Your task to perform on an android device: Open Google Maps and go to "Timeline" Image 0: 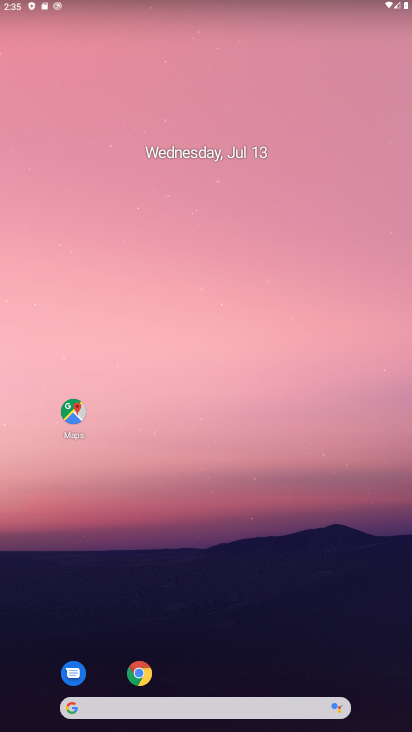
Step 0: click (74, 412)
Your task to perform on an android device: Open Google Maps and go to "Timeline" Image 1: 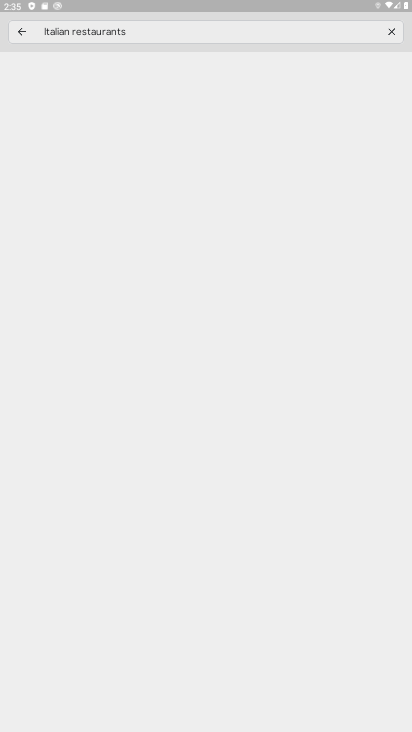
Step 1: press back button
Your task to perform on an android device: Open Google Maps and go to "Timeline" Image 2: 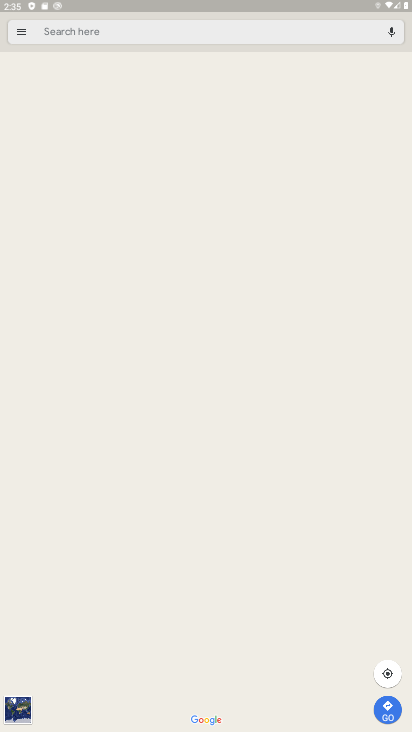
Step 2: click (20, 36)
Your task to perform on an android device: Open Google Maps and go to "Timeline" Image 3: 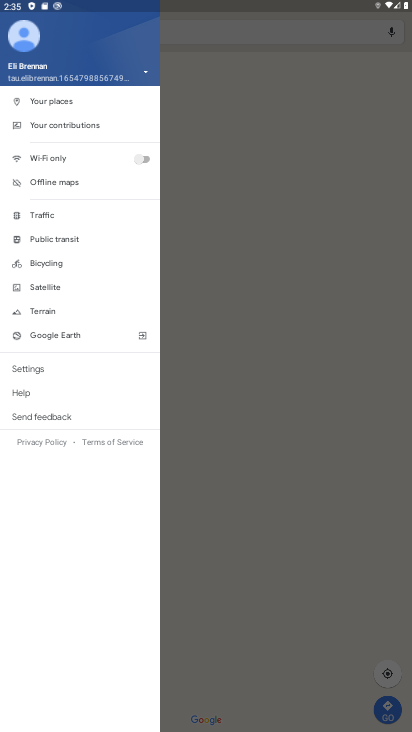
Step 3: click (64, 100)
Your task to perform on an android device: Open Google Maps and go to "Timeline" Image 4: 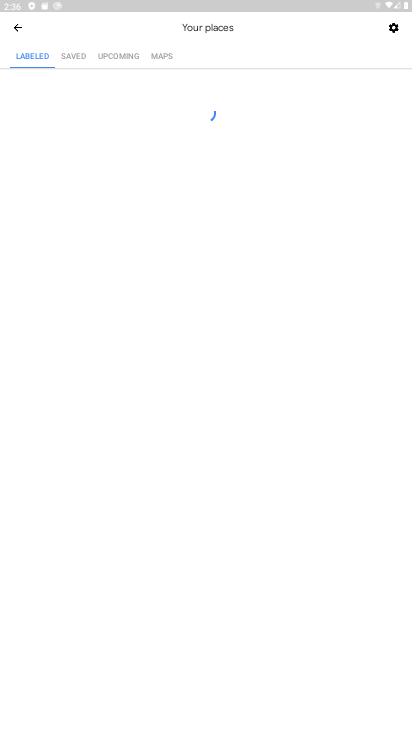
Step 4: press back button
Your task to perform on an android device: Open Google Maps and go to "Timeline" Image 5: 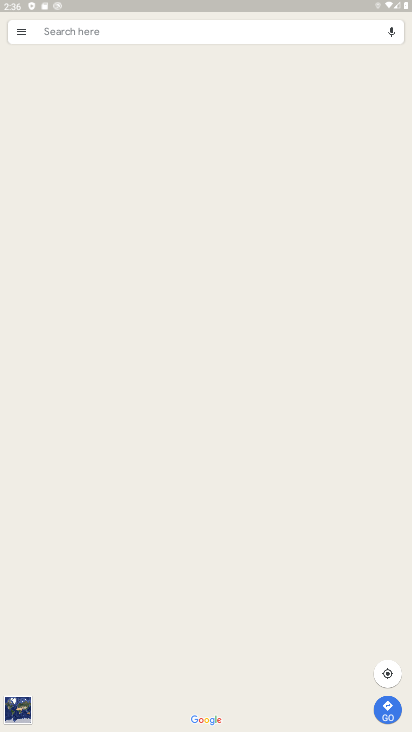
Step 5: press home button
Your task to perform on an android device: Open Google Maps and go to "Timeline" Image 6: 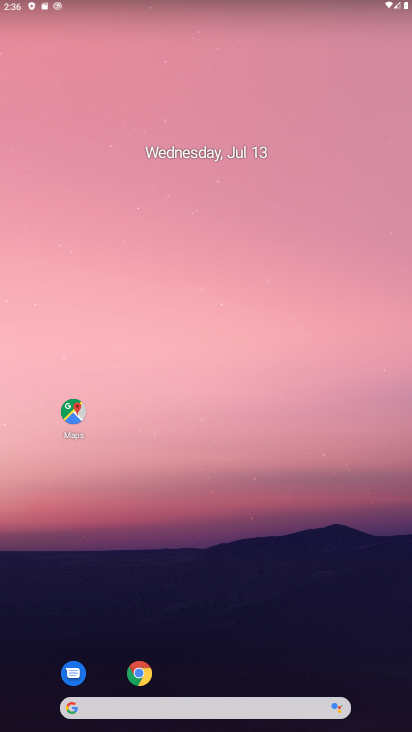
Step 6: click (69, 410)
Your task to perform on an android device: Open Google Maps and go to "Timeline" Image 7: 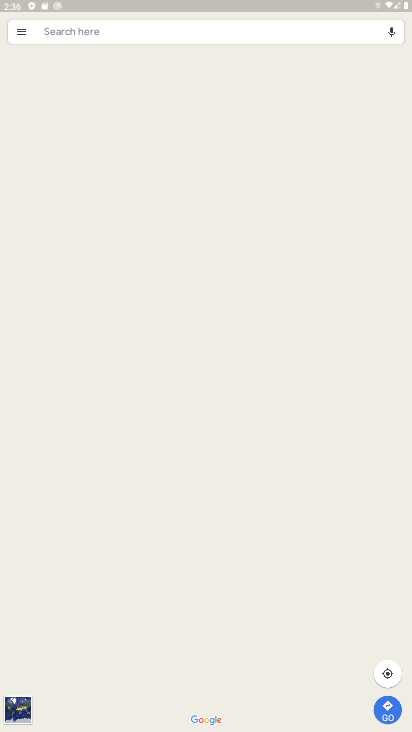
Step 7: click (255, 34)
Your task to perform on an android device: Open Google Maps and go to "Timeline" Image 8: 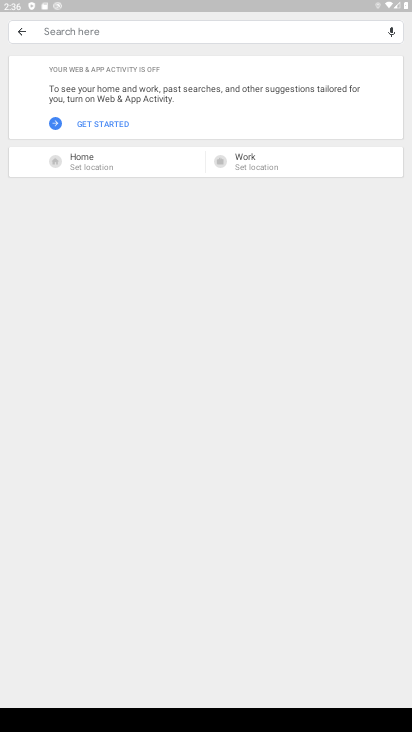
Step 8: press back button
Your task to perform on an android device: Open Google Maps and go to "Timeline" Image 9: 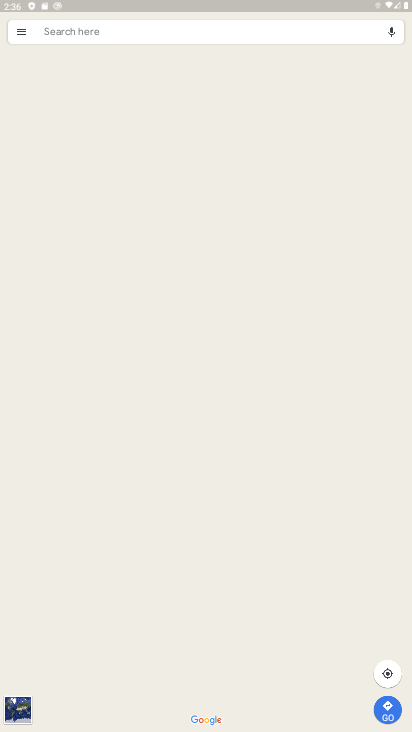
Step 9: click (22, 32)
Your task to perform on an android device: Open Google Maps and go to "Timeline" Image 10: 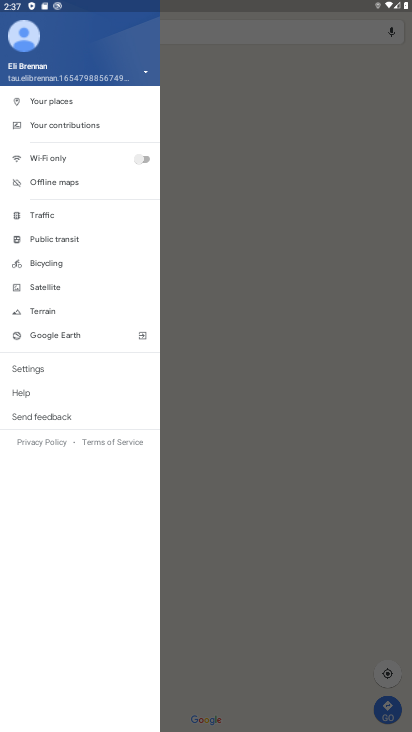
Step 10: click (63, 125)
Your task to perform on an android device: Open Google Maps and go to "Timeline" Image 11: 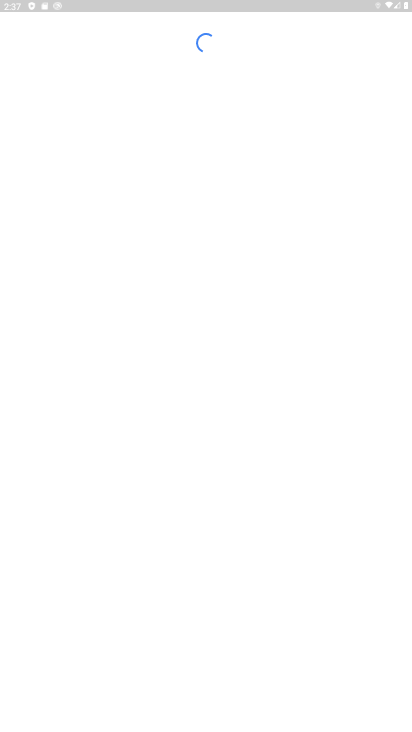
Step 11: task complete